Your task to perform on an android device: see creations saved in the google photos Image 0: 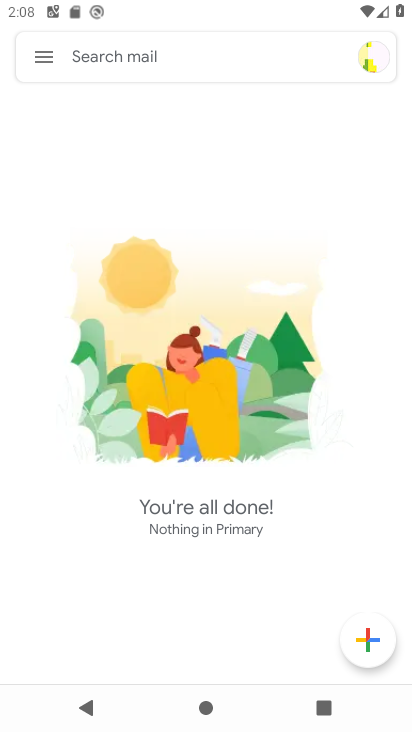
Step 0: press home button
Your task to perform on an android device: see creations saved in the google photos Image 1: 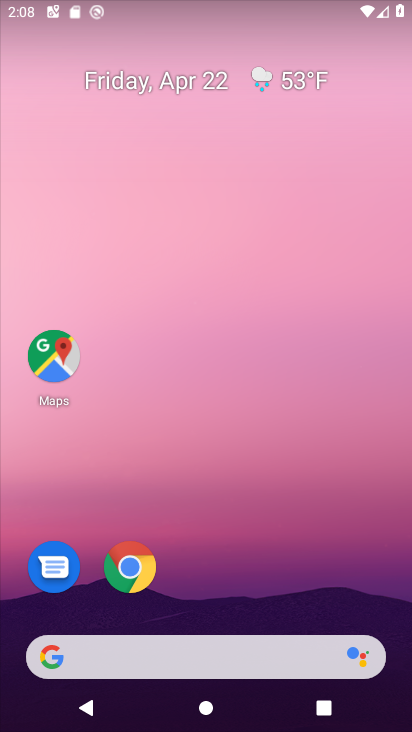
Step 1: drag from (217, 555) to (279, 100)
Your task to perform on an android device: see creations saved in the google photos Image 2: 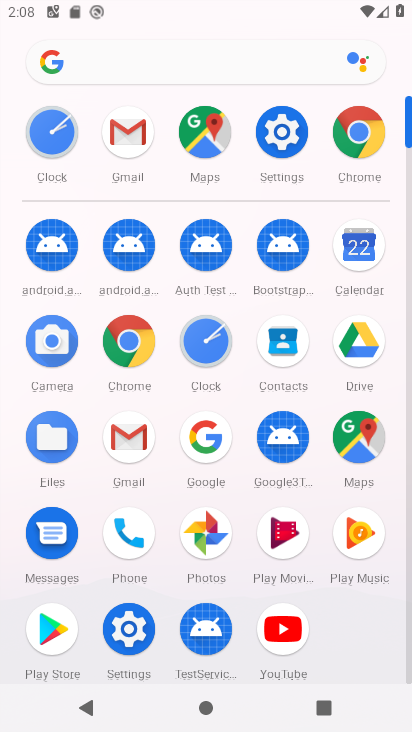
Step 2: click (206, 536)
Your task to perform on an android device: see creations saved in the google photos Image 3: 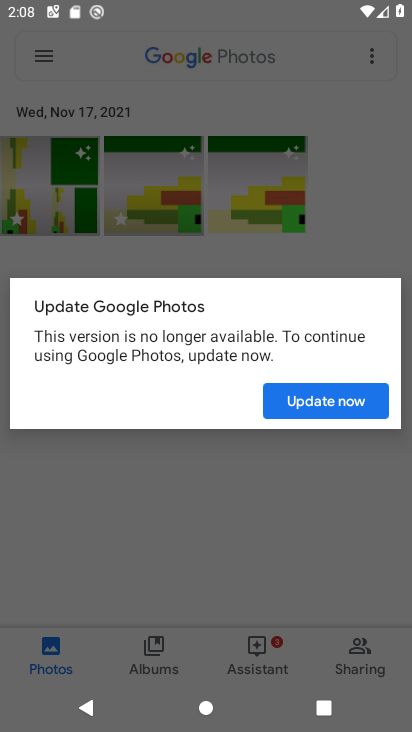
Step 3: click (315, 397)
Your task to perform on an android device: see creations saved in the google photos Image 4: 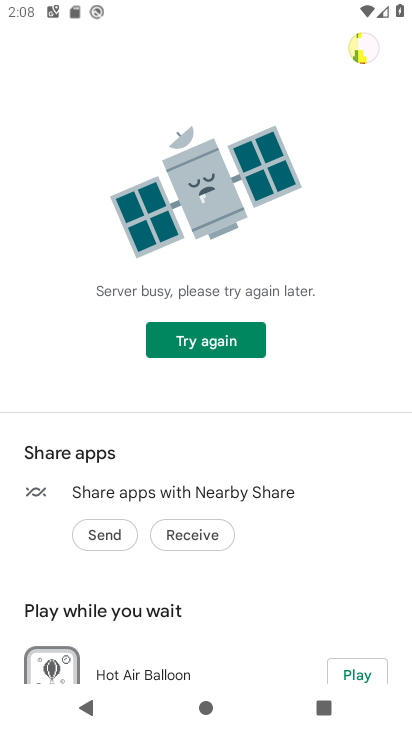
Step 4: press back button
Your task to perform on an android device: see creations saved in the google photos Image 5: 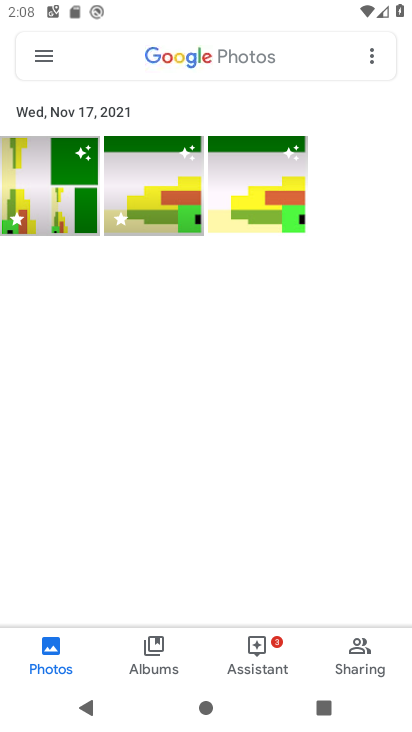
Step 5: click (117, 46)
Your task to perform on an android device: see creations saved in the google photos Image 6: 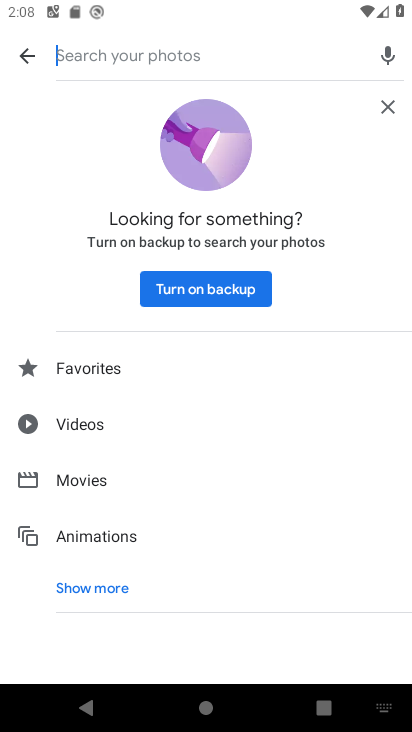
Step 6: click (110, 575)
Your task to perform on an android device: see creations saved in the google photos Image 7: 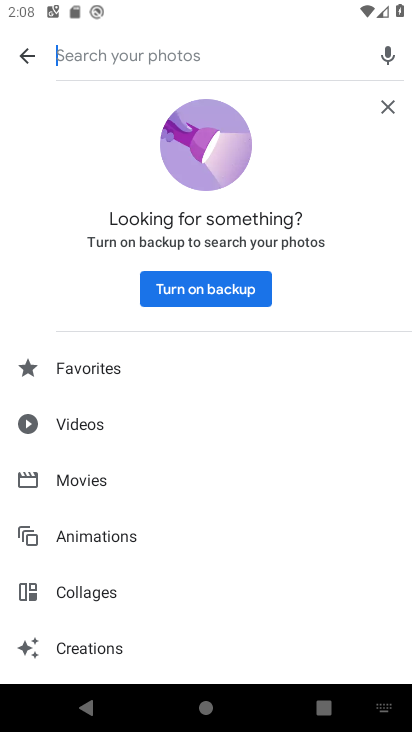
Step 7: drag from (219, 519) to (242, 324)
Your task to perform on an android device: see creations saved in the google photos Image 8: 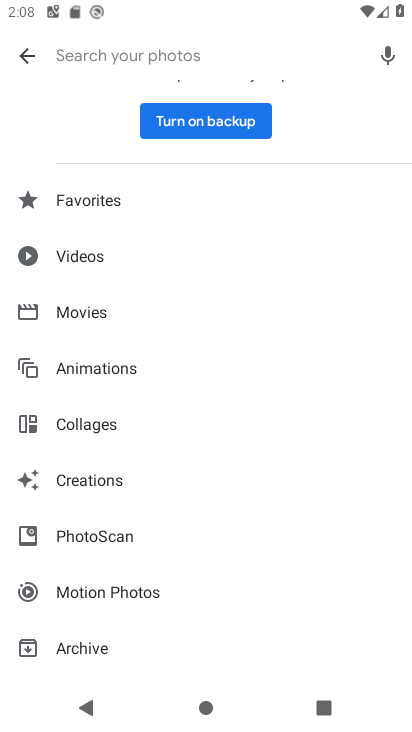
Step 8: click (105, 476)
Your task to perform on an android device: see creations saved in the google photos Image 9: 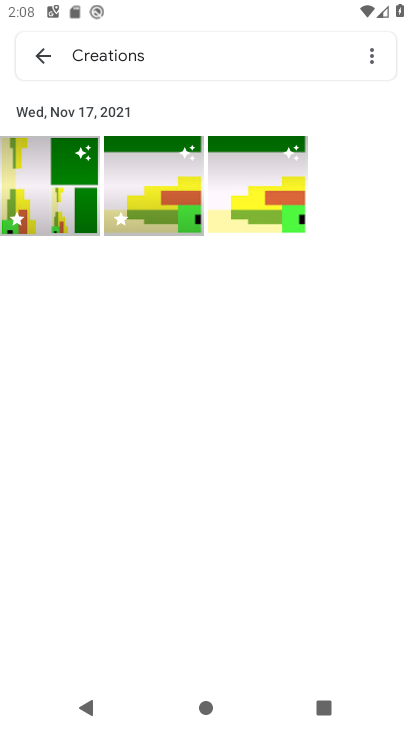
Step 9: task complete